Your task to perform on an android device: change the clock style Image 0: 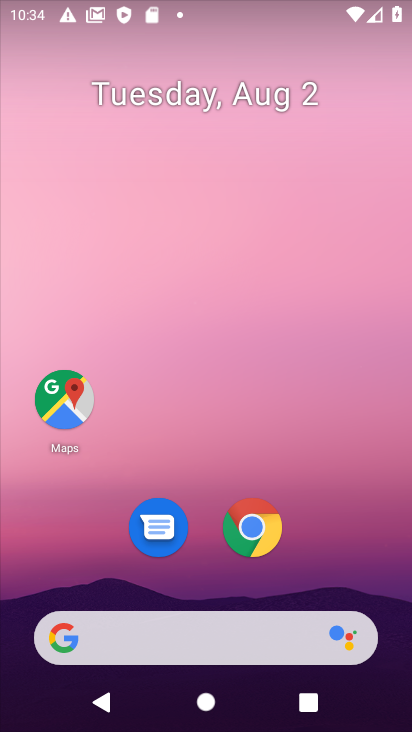
Step 0: drag from (209, 586) to (237, 0)
Your task to perform on an android device: change the clock style Image 1: 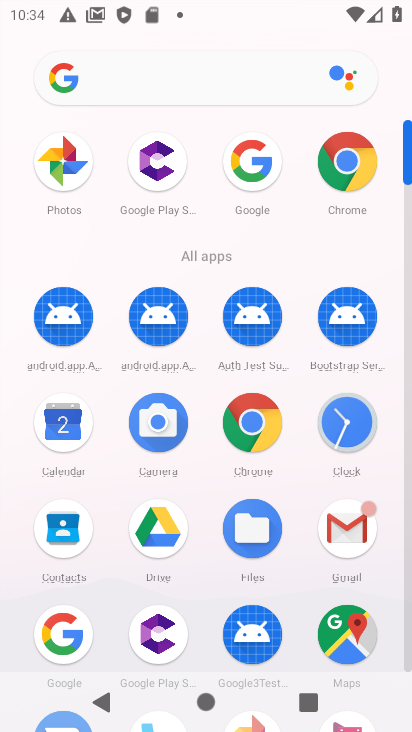
Step 1: click (340, 414)
Your task to perform on an android device: change the clock style Image 2: 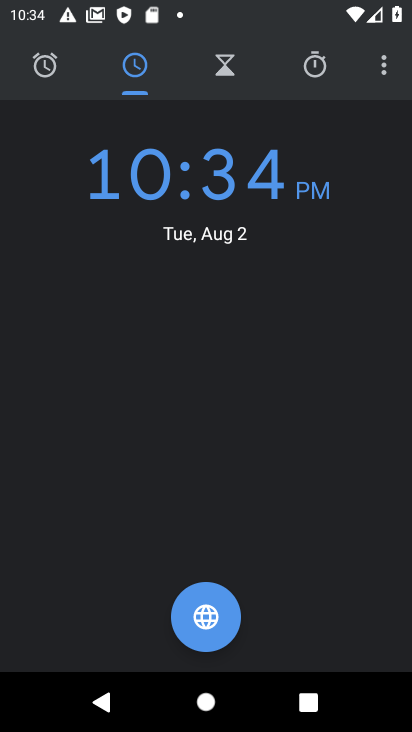
Step 2: click (387, 56)
Your task to perform on an android device: change the clock style Image 3: 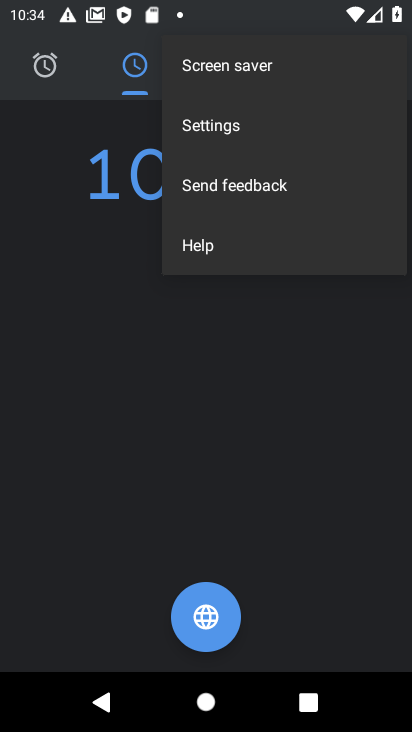
Step 3: click (249, 125)
Your task to perform on an android device: change the clock style Image 4: 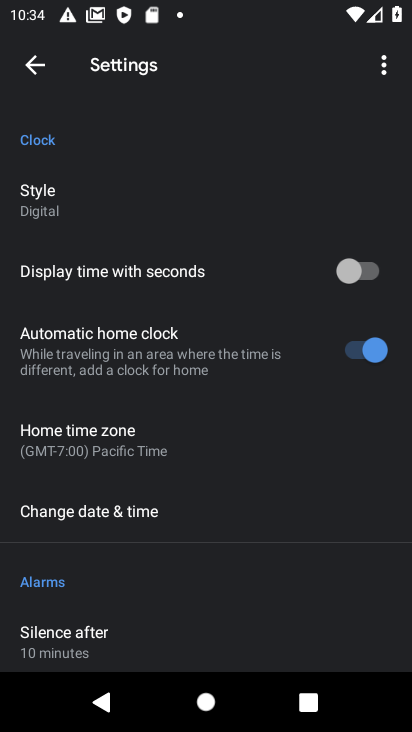
Step 4: click (77, 198)
Your task to perform on an android device: change the clock style Image 5: 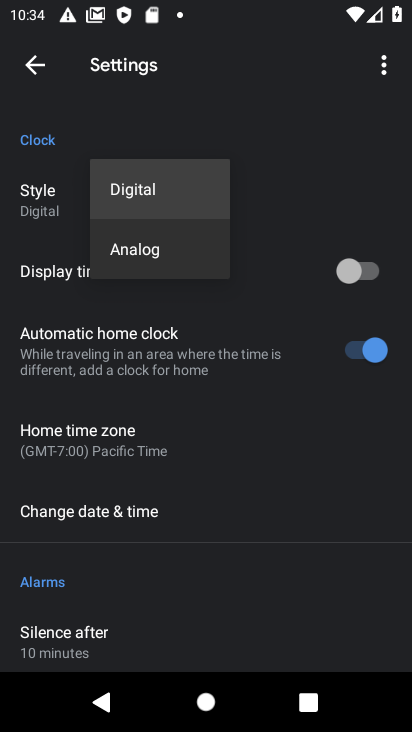
Step 5: click (166, 251)
Your task to perform on an android device: change the clock style Image 6: 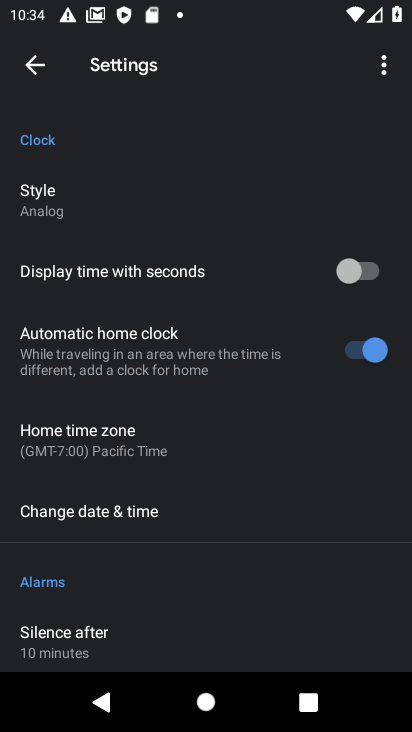
Step 6: task complete